Your task to perform on an android device: open a new tab in the chrome app Image 0: 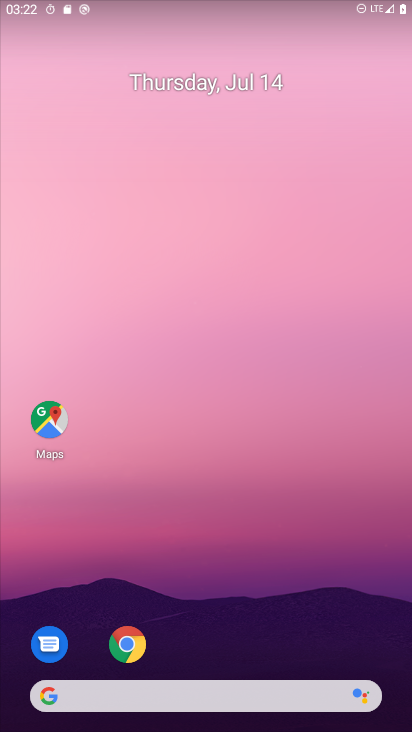
Step 0: drag from (240, 545) to (267, 102)
Your task to perform on an android device: open a new tab in the chrome app Image 1: 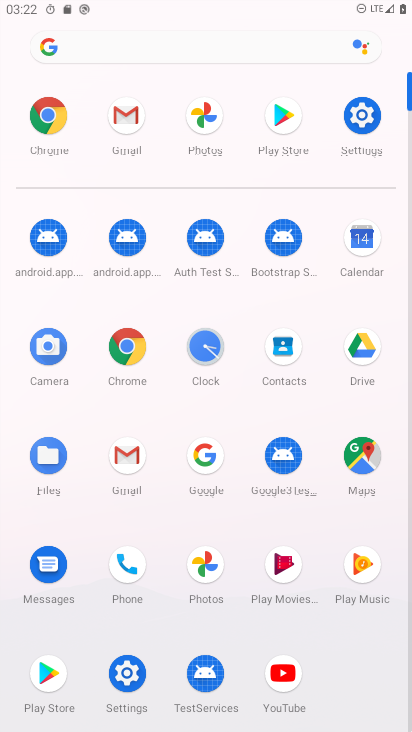
Step 1: click (122, 343)
Your task to perform on an android device: open a new tab in the chrome app Image 2: 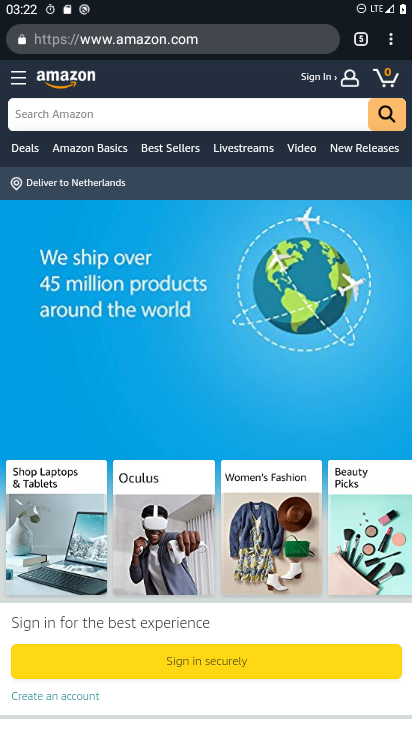
Step 2: task complete